Your task to perform on an android device: clear history in the chrome app Image 0: 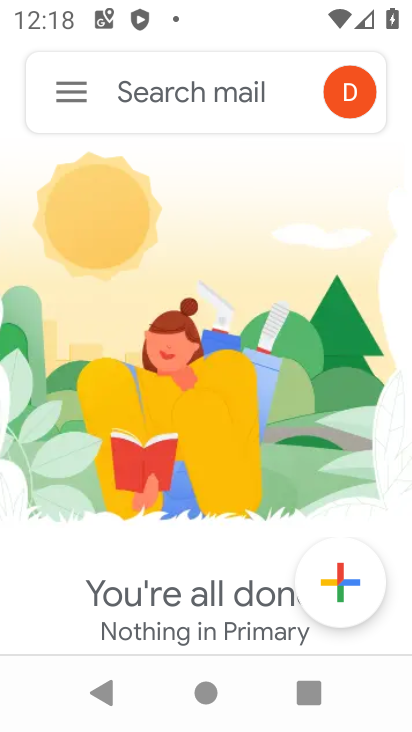
Step 0: press back button
Your task to perform on an android device: clear history in the chrome app Image 1: 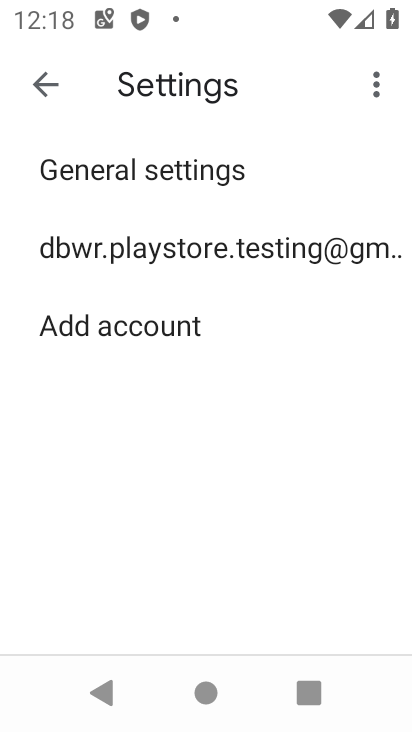
Step 1: press home button
Your task to perform on an android device: clear history in the chrome app Image 2: 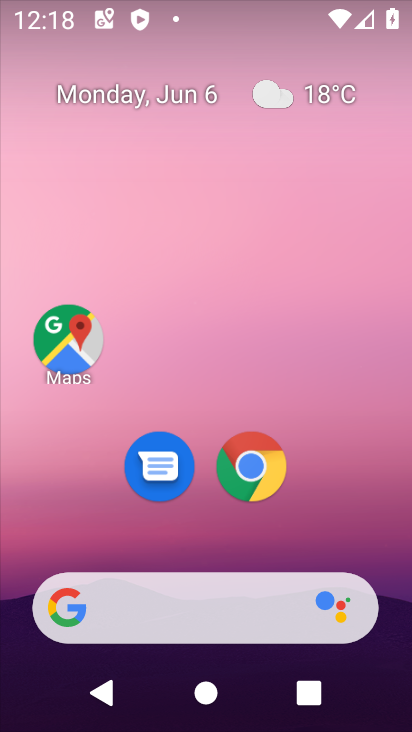
Step 2: drag from (351, 531) to (241, 14)
Your task to perform on an android device: clear history in the chrome app Image 3: 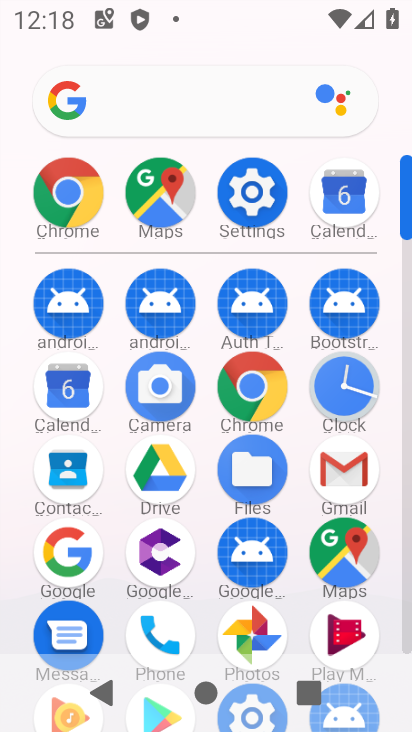
Step 3: click (255, 385)
Your task to perform on an android device: clear history in the chrome app Image 4: 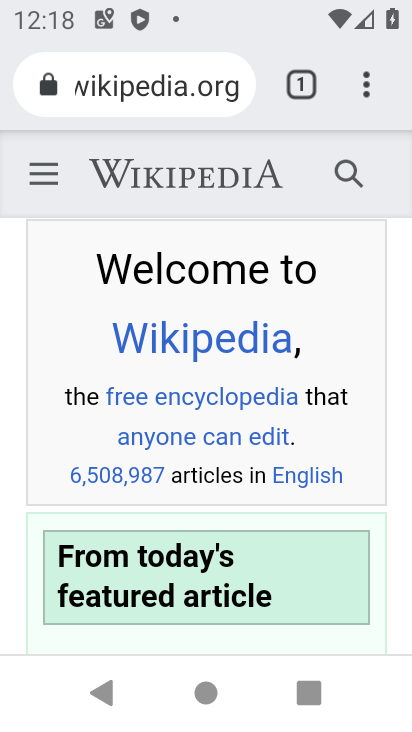
Step 4: task complete